Your task to perform on an android device: create a new album in the google photos Image 0: 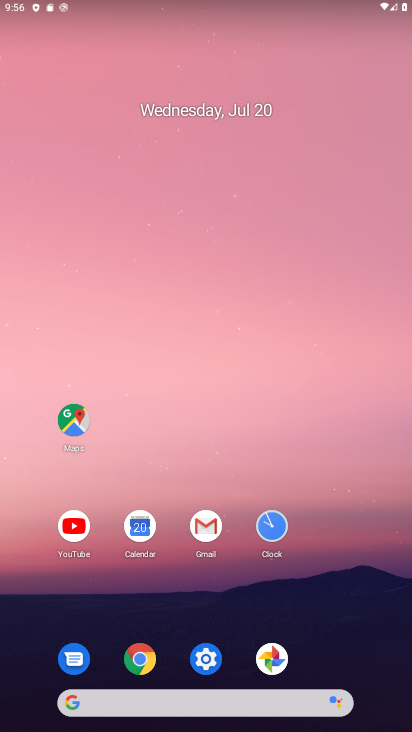
Step 0: click (274, 664)
Your task to perform on an android device: create a new album in the google photos Image 1: 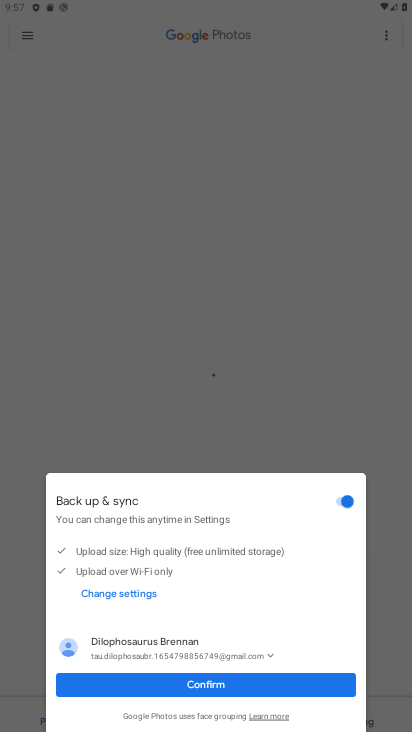
Step 1: click (208, 681)
Your task to perform on an android device: create a new album in the google photos Image 2: 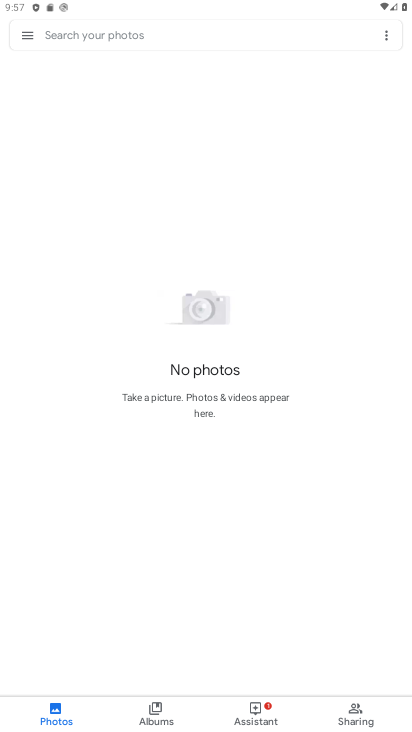
Step 2: click (159, 714)
Your task to perform on an android device: create a new album in the google photos Image 3: 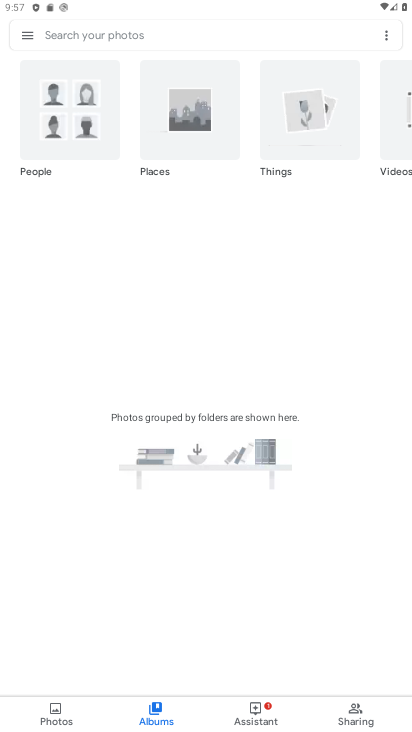
Step 3: click (388, 36)
Your task to perform on an android device: create a new album in the google photos Image 4: 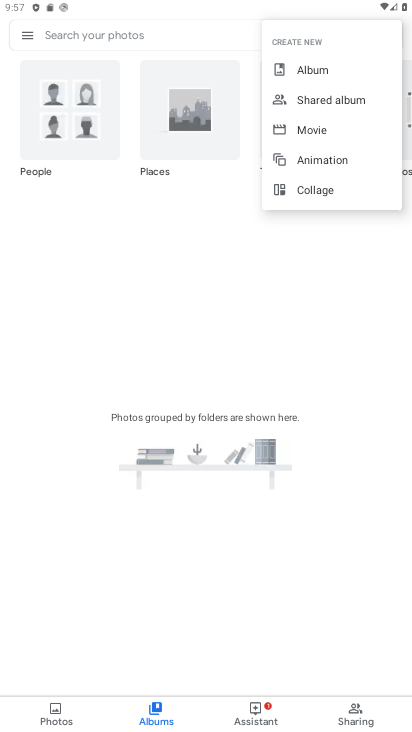
Step 4: click (319, 71)
Your task to perform on an android device: create a new album in the google photos Image 5: 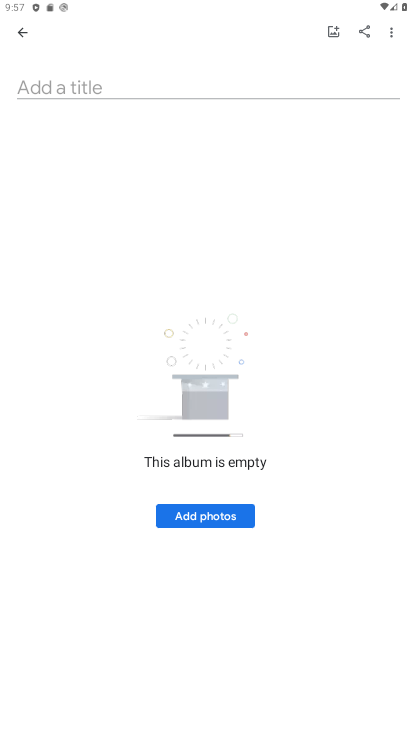
Step 5: click (149, 68)
Your task to perform on an android device: create a new album in the google photos Image 6: 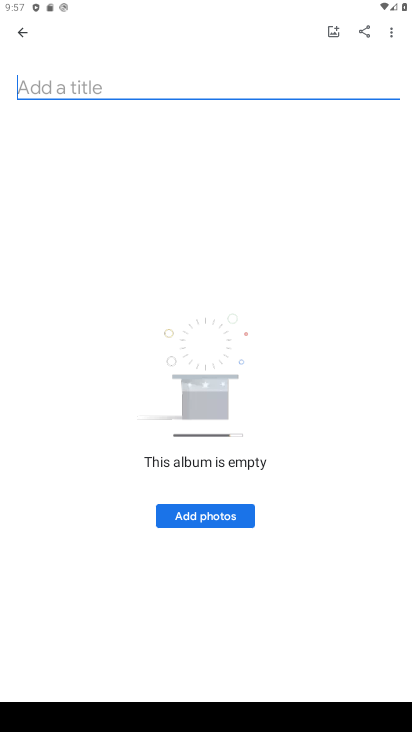
Step 6: type "ghghgh"
Your task to perform on an android device: create a new album in the google photos Image 7: 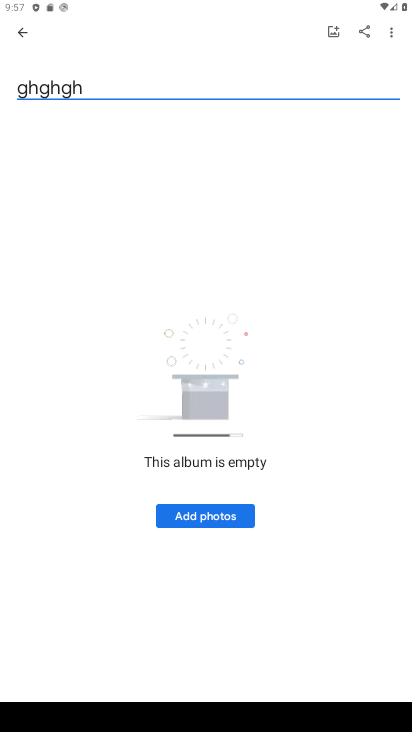
Step 7: click (334, 28)
Your task to perform on an android device: create a new album in the google photos Image 8: 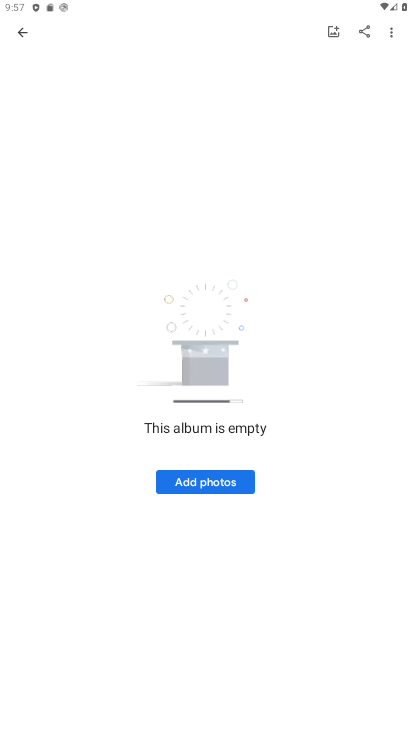
Step 8: task complete